Your task to perform on an android device: Open Google Maps Image 0: 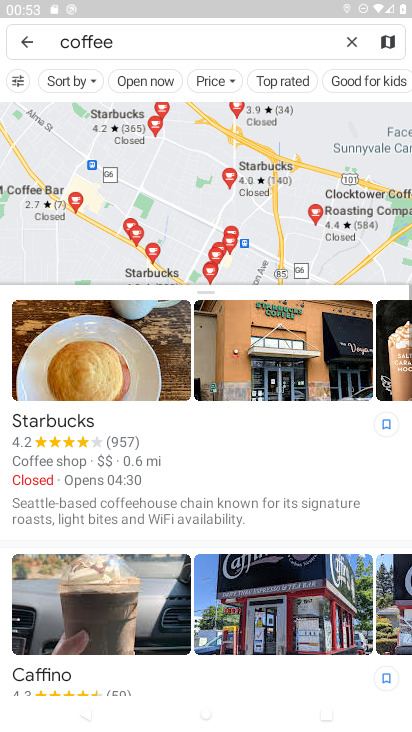
Step 0: press home button
Your task to perform on an android device: Open Google Maps Image 1: 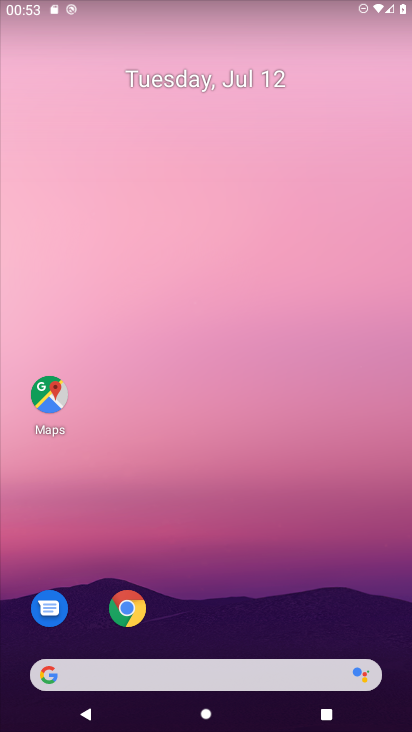
Step 1: drag from (208, 642) to (203, 186)
Your task to perform on an android device: Open Google Maps Image 2: 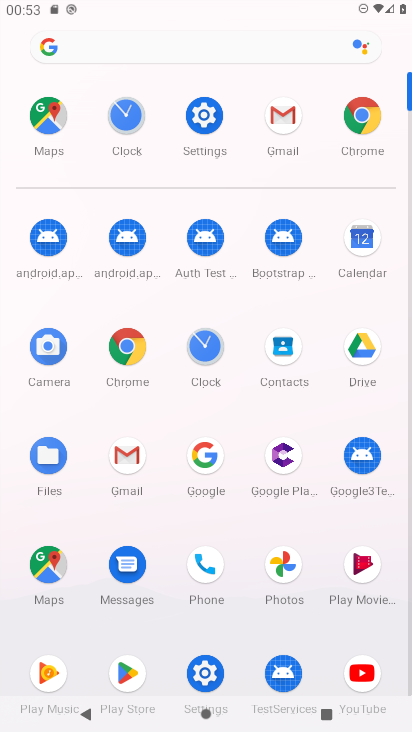
Step 2: click (56, 566)
Your task to perform on an android device: Open Google Maps Image 3: 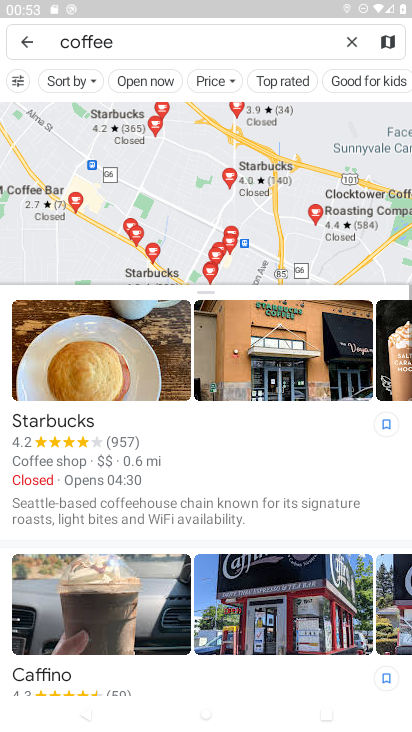
Step 3: task complete